Your task to perform on an android device: delete the emails in spam in the gmail app Image 0: 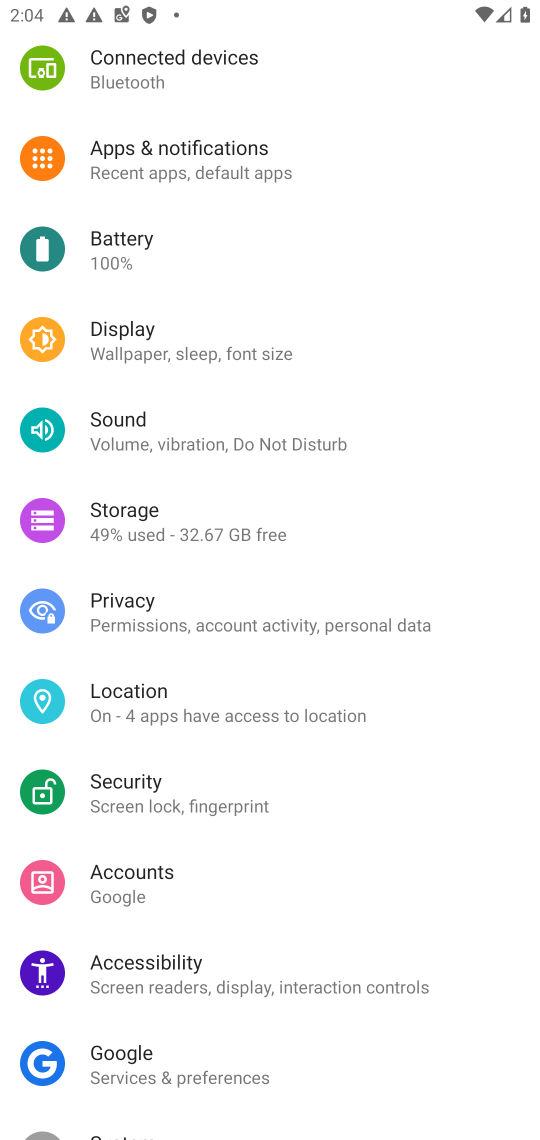
Step 0: press home button
Your task to perform on an android device: delete the emails in spam in the gmail app Image 1: 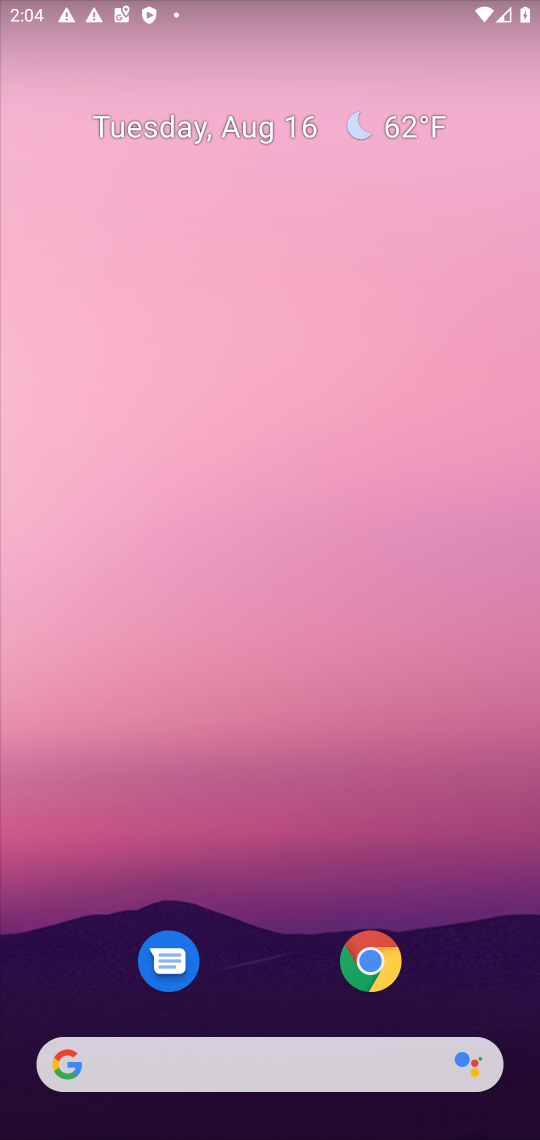
Step 1: drag from (287, 320) to (180, 63)
Your task to perform on an android device: delete the emails in spam in the gmail app Image 2: 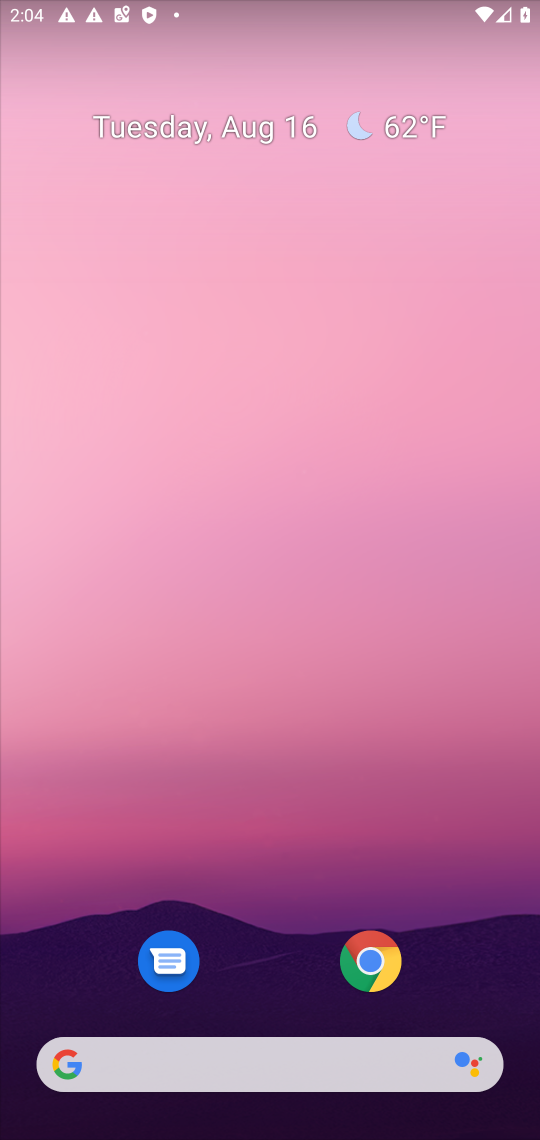
Step 2: drag from (490, 949) to (200, 4)
Your task to perform on an android device: delete the emails in spam in the gmail app Image 3: 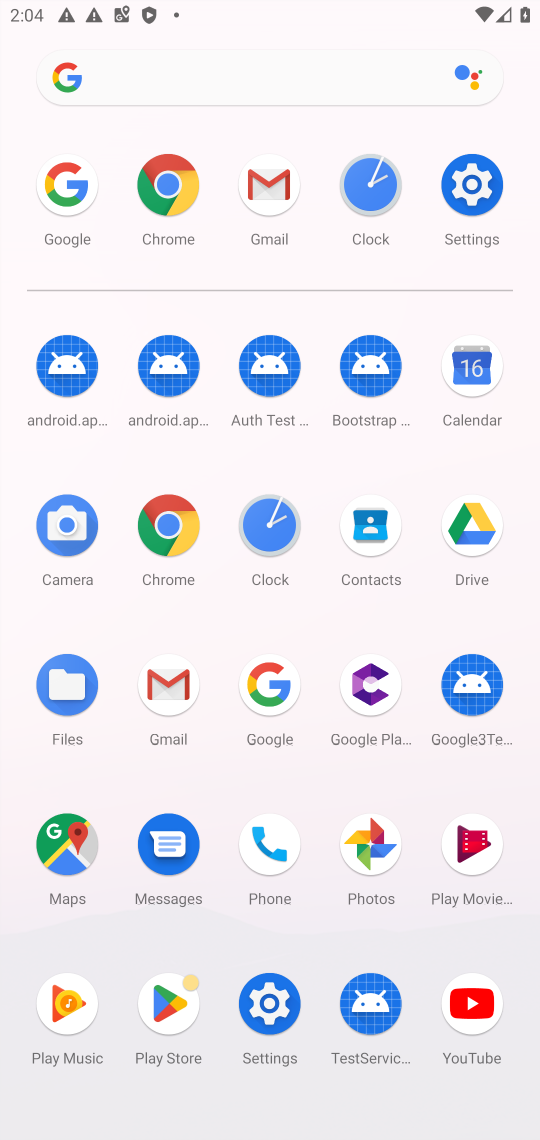
Step 3: click (154, 683)
Your task to perform on an android device: delete the emails in spam in the gmail app Image 4: 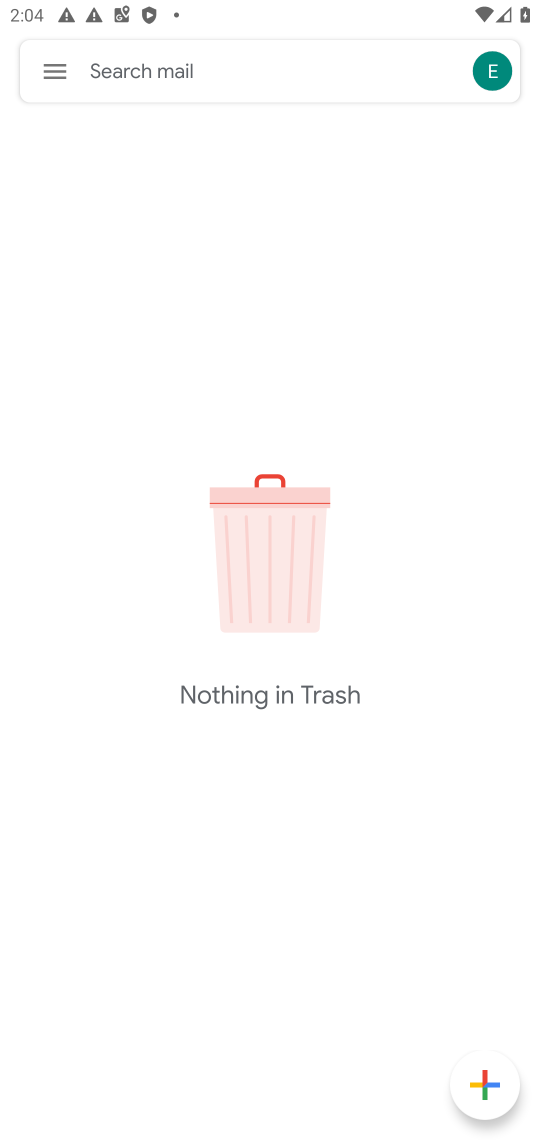
Step 4: task complete